Your task to perform on an android device: Go to Amazon Image 0: 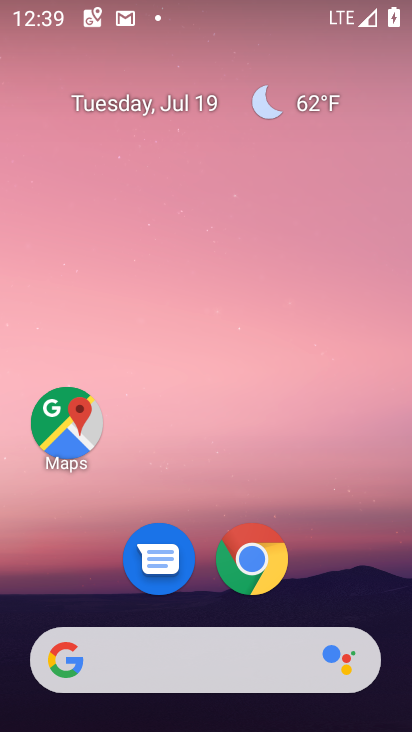
Step 0: drag from (293, 652) to (384, 101)
Your task to perform on an android device: Go to Amazon Image 1: 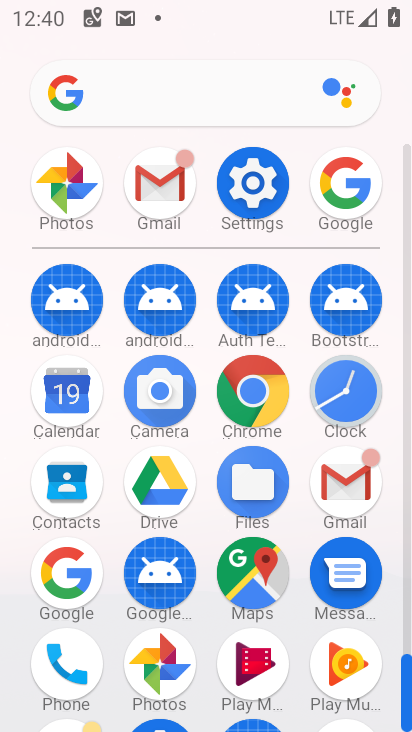
Step 1: click (245, 401)
Your task to perform on an android device: Go to Amazon Image 2: 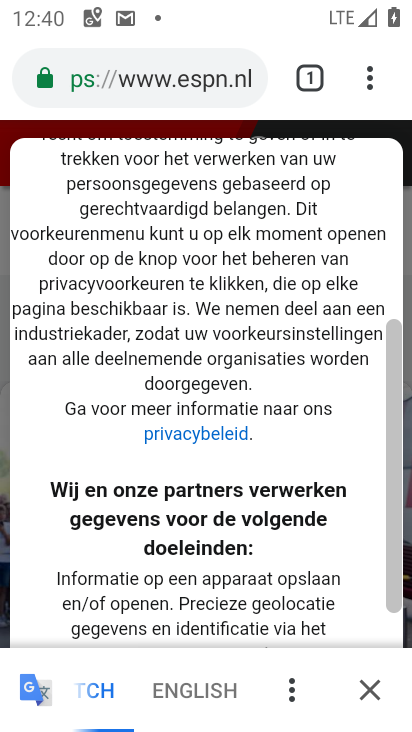
Step 2: drag from (263, 65) to (214, 363)
Your task to perform on an android device: Go to Amazon Image 3: 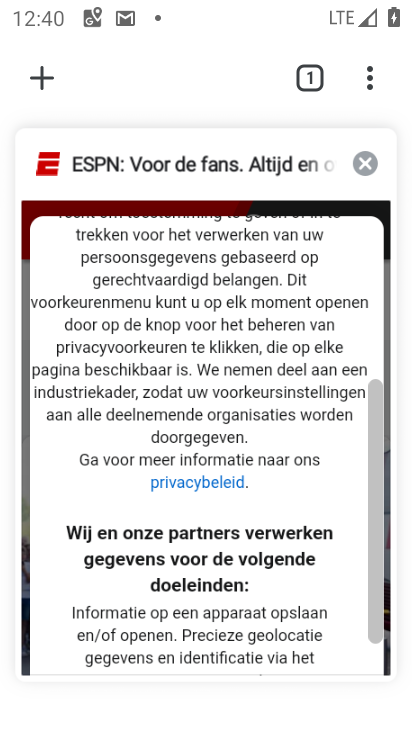
Step 3: click (51, 83)
Your task to perform on an android device: Go to Amazon Image 4: 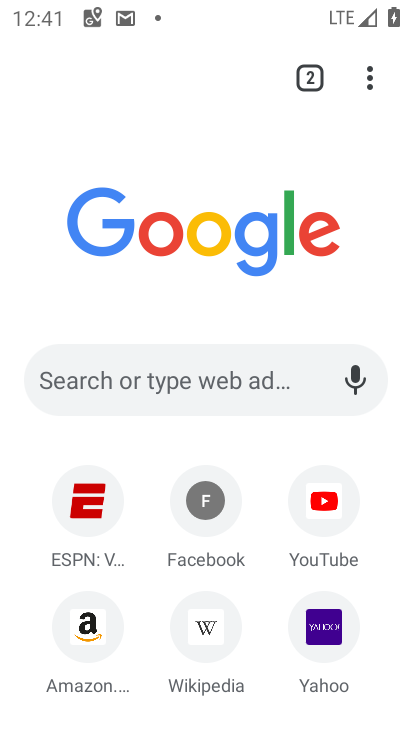
Step 4: click (94, 640)
Your task to perform on an android device: Go to Amazon Image 5: 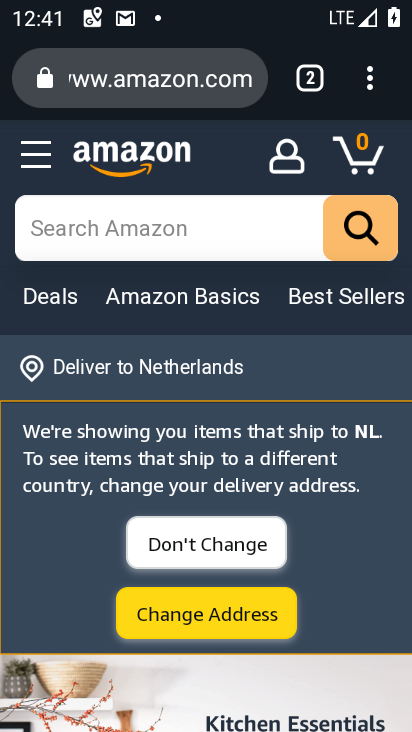
Step 5: task complete